Your task to perform on an android device: turn on data saver in the chrome app Image 0: 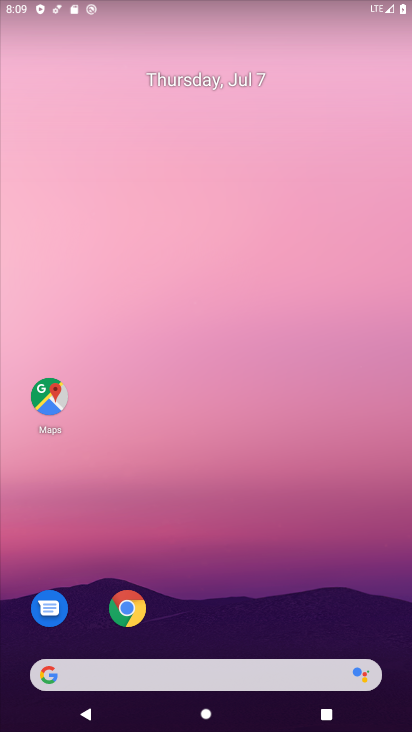
Step 0: drag from (370, 617) to (387, 63)
Your task to perform on an android device: turn on data saver in the chrome app Image 1: 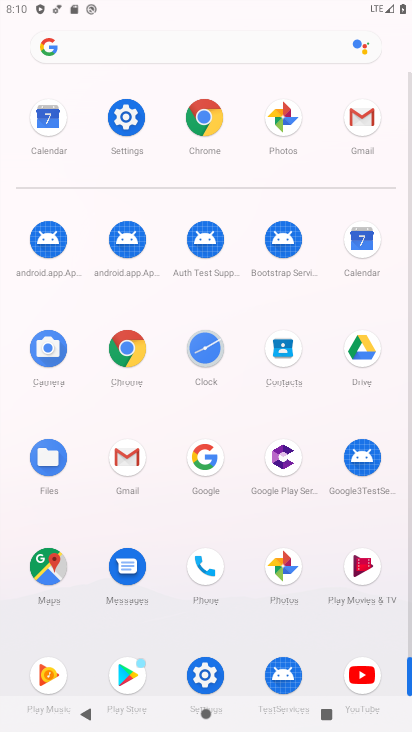
Step 1: click (132, 352)
Your task to perform on an android device: turn on data saver in the chrome app Image 2: 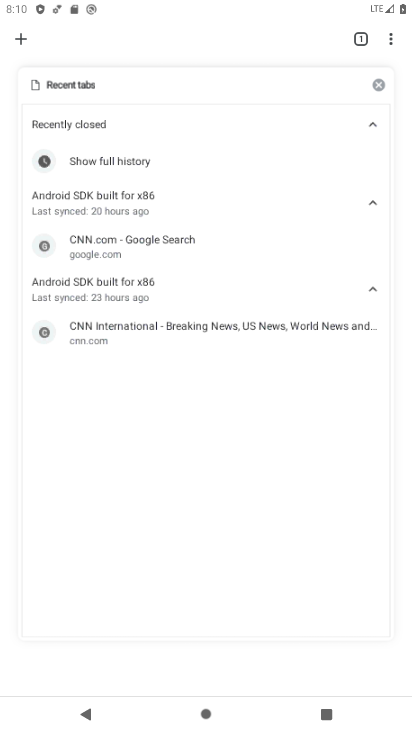
Step 2: click (388, 37)
Your task to perform on an android device: turn on data saver in the chrome app Image 3: 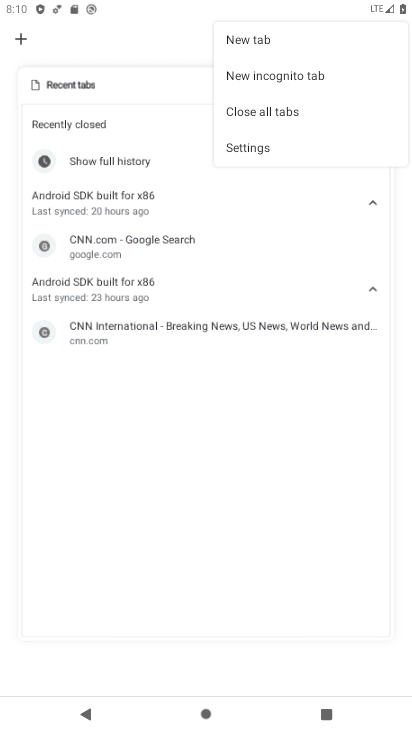
Step 3: click (274, 151)
Your task to perform on an android device: turn on data saver in the chrome app Image 4: 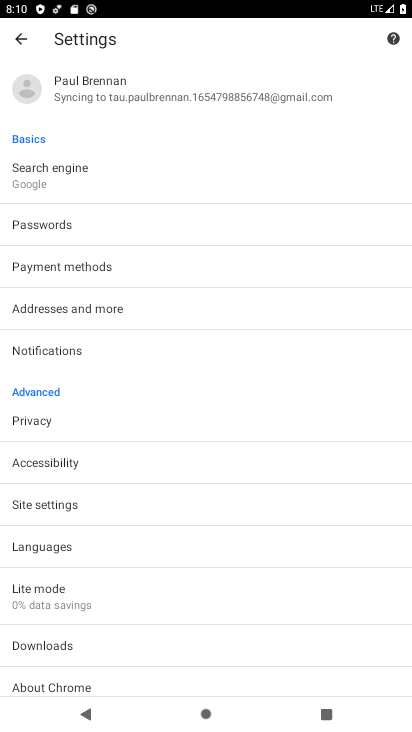
Step 4: drag from (273, 530) to (293, 305)
Your task to perform on an android device: turn on data saver in the chrome app Image 5: 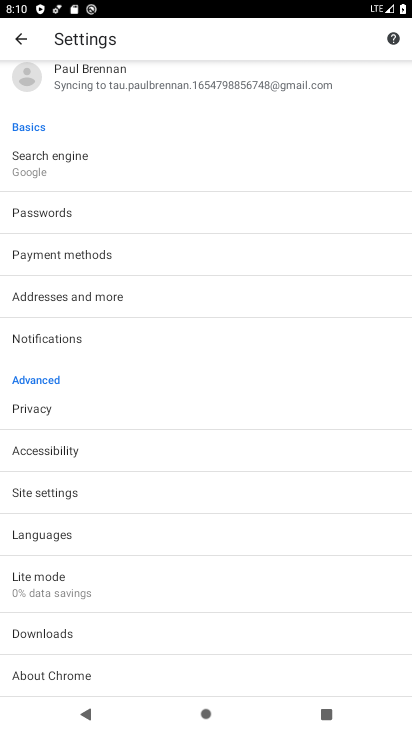
Step 5: click (227, 577)
Your task to perform on an android device: turn on data saver in the chrome app Image 6: 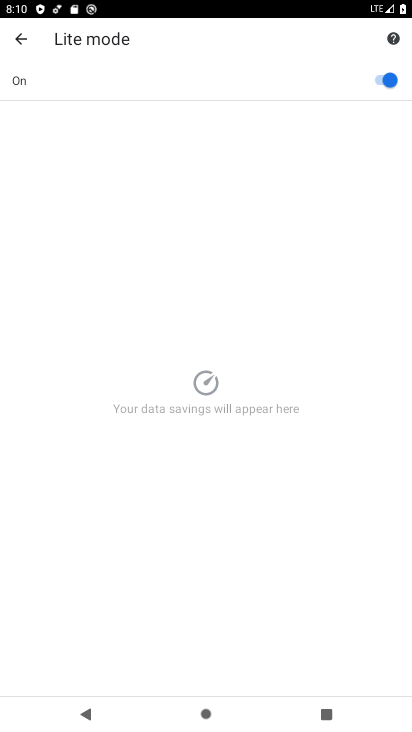
Step 6: task complete